Your task to perform on an android device: delete browsing data in the chrome app Image 0: 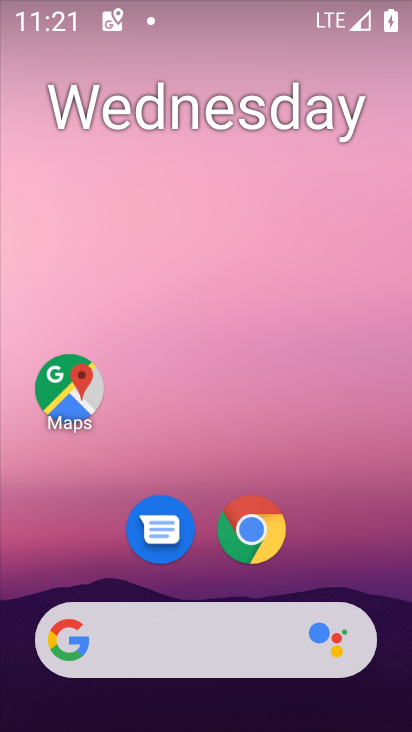
Step 0: click (248, 528)
Your task to perform on an android device: delete browsing data in the chrome app Image 1: 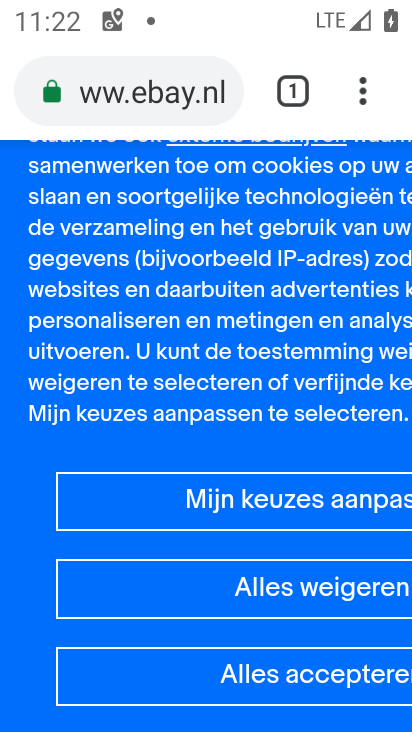
Step 1: click (360, 95)
Your task to perform on an android device: delete browsing data in the chrome app Image 2: 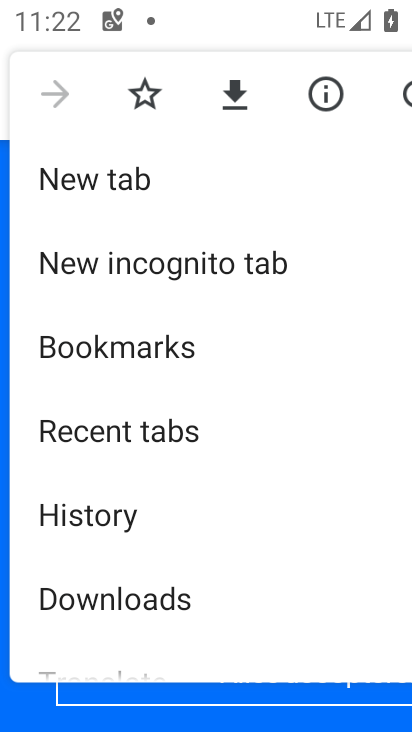
Step 2: click (96, 510)
Your task to perform on an android device: delete browsing data in the chrome app Image 3: 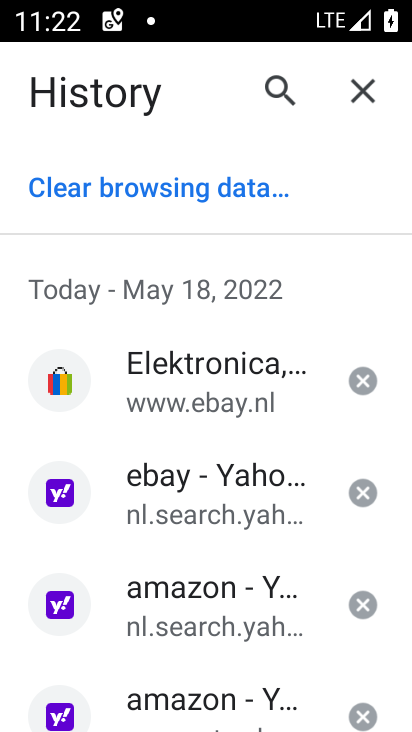
Step 3: click (121, 185)
Your task to perform on an android device: delete browsing data in the chrome app Image 4: 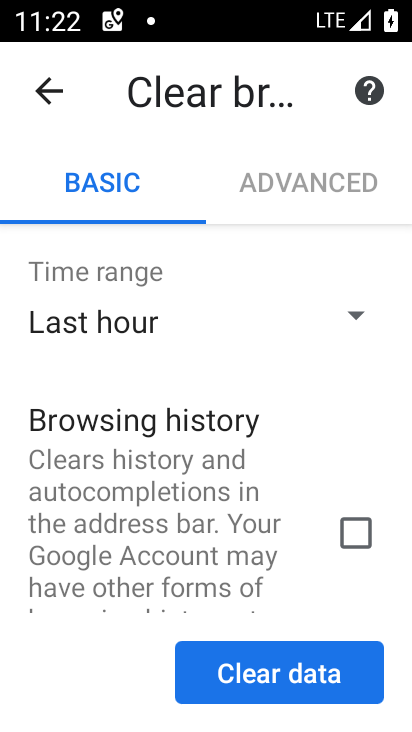
Step 4: click (355, 535)
Your task to perform on an android device: delete browsing data in the chrome app Image 5: 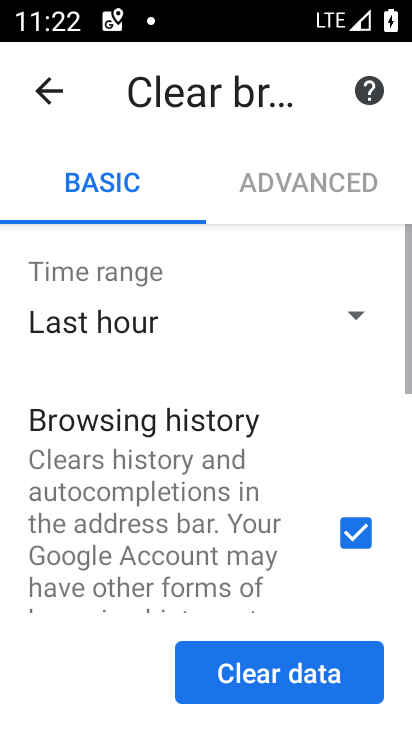
Step 5: drag from (302, 588) to (254, 239)
Your task to perform on an android device: delete browsing data in the chrome app Image 6: 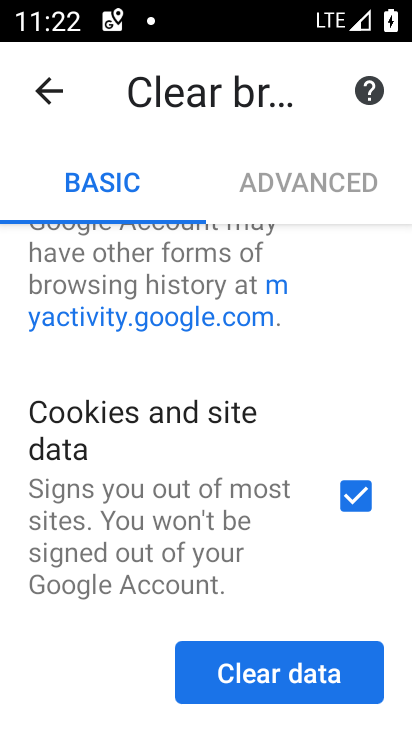
Step 6: click (356, 501)
Your task to perform on an android device: delete browsing data in the chrome app Image 7: 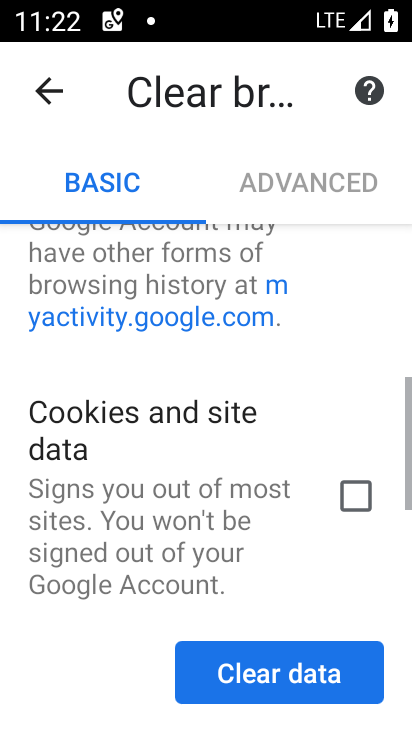
Step 7: drag from (265, 584) to (252, 245)
Your task to perform on an android device: delete browsing data in the chrome app Image 8: 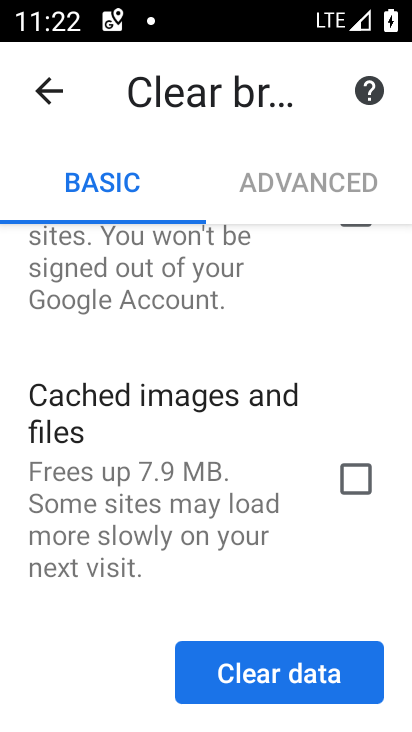
Step 8: click (286, 674)
Your task to perform on an android device: delete browsing data in the chrome app Image 9: 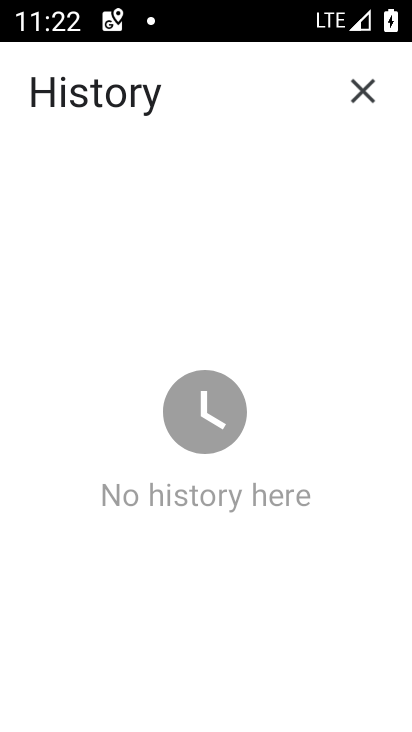
Step 9: task complete